Your task to perform on an android device: Open settings Image 0: 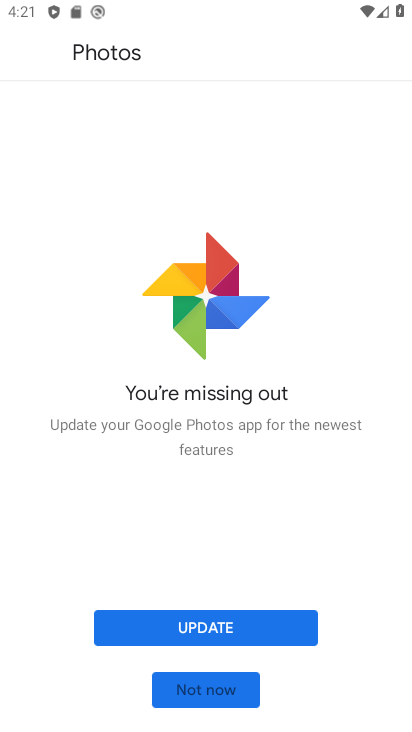
Step 0: click (200, 691)
Your task to perform on an android device: Open settings Image 1: 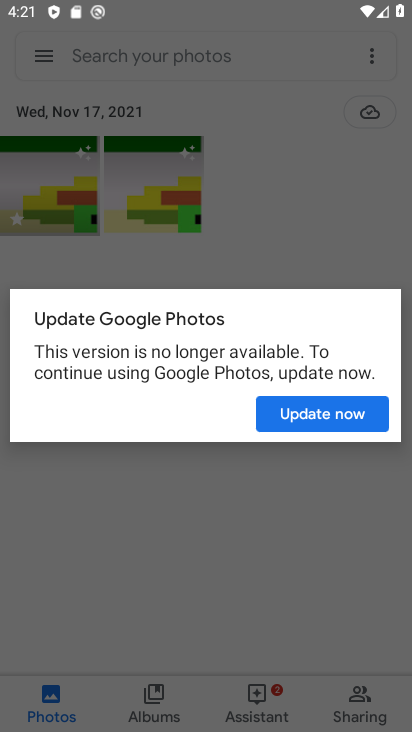
Step 1: press back button
Your task to perform on an android device: Open settings Image 2: 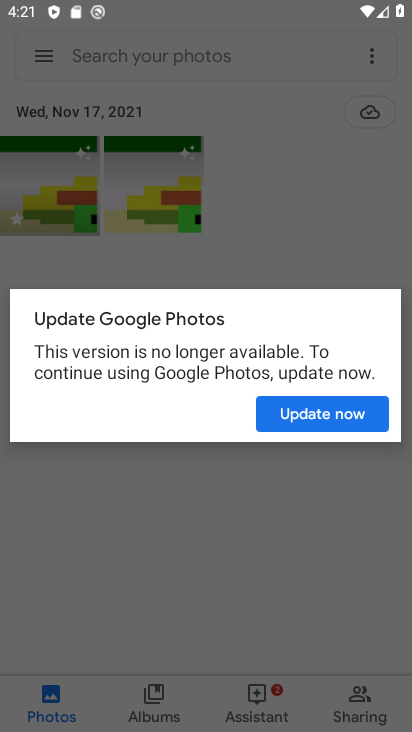
Step 2: press home button
Your task to perform on an android device: Open settings Image 3: 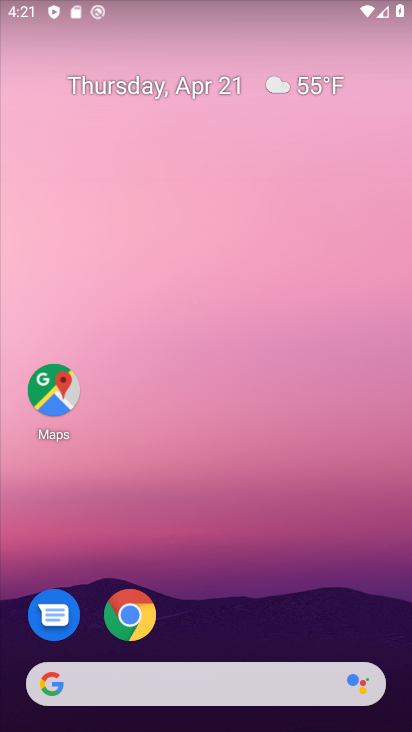
Step 3: drag from (271, 600) to (254, 34)
Your task to perform on an android device: Open settings Image 4: 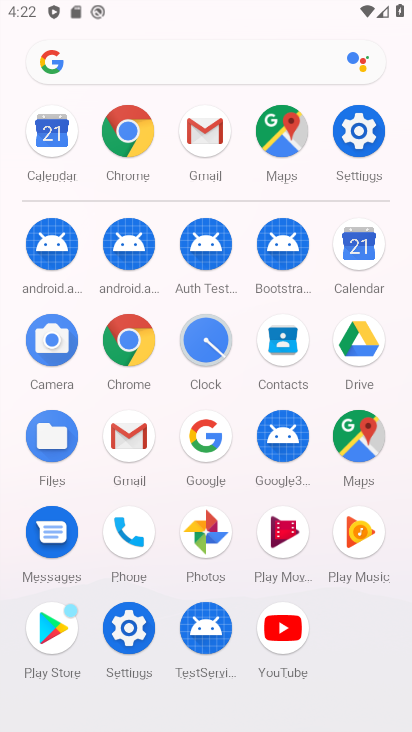
Step 4: drag from (9, 579) to (19, 382)
Your task to perform on an android device: Open settings Image 5: 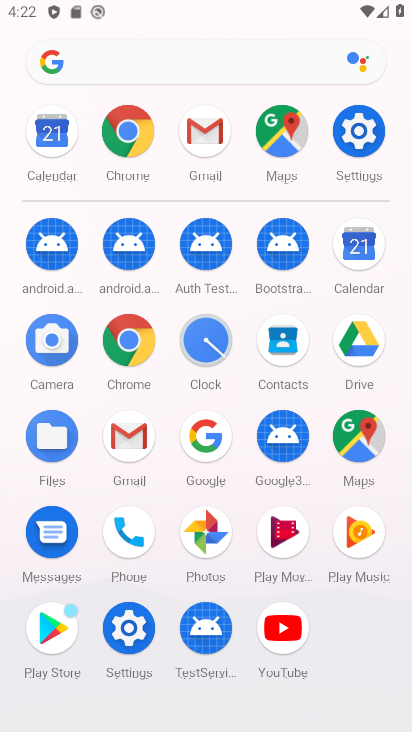
Step 5: click (129, 626)
Your task to perform on an android device: Open settings Image 6: 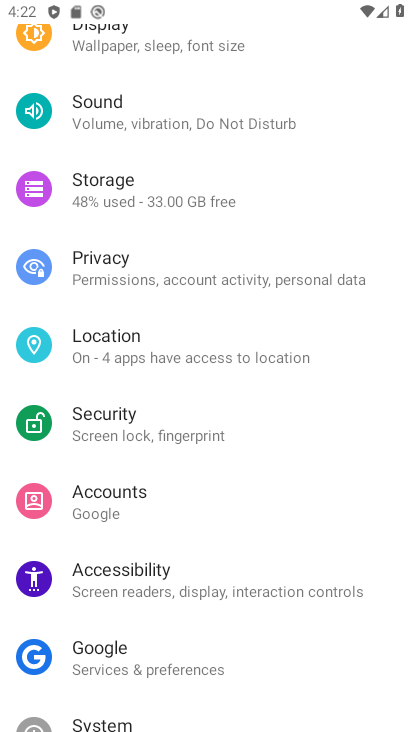
Step 6: task complete